Your task to perform on an android device: Turn on the flashlight Image 0: 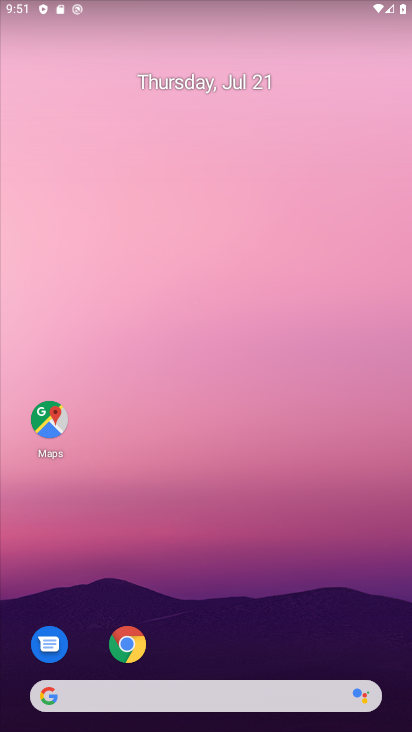
Step 0: drag from (264, 111) to (315, 61)
Your task to perform on an android device: Turn on the flashlight Image 1: 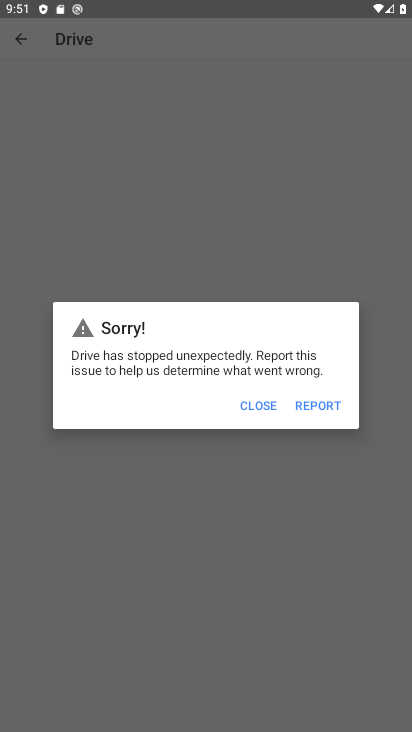
Step 1: press home button
Your task to perform on an android device: Turn on the flashlight Image 2: 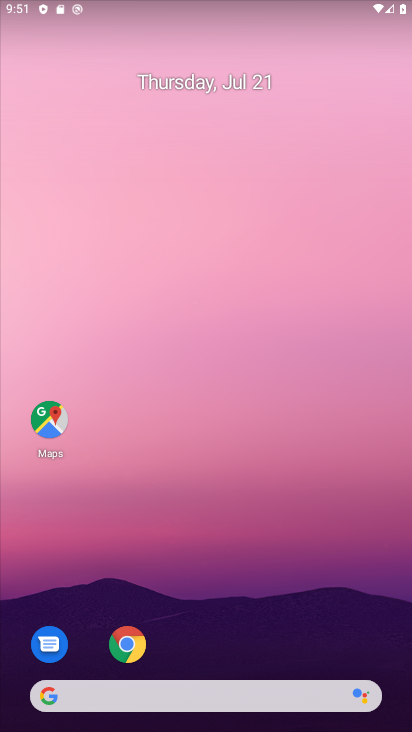
Step 2: drag from (220, 590) to (239, 45)
Your task to perform on an android device: Turn on the flashlight Image 3: 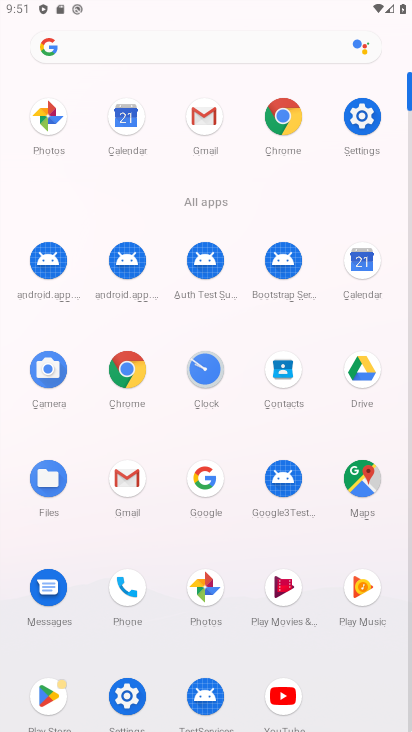
Step 3: click (122, 689)
Your task to perform on an android device: Turn on the flashlight Image 4: 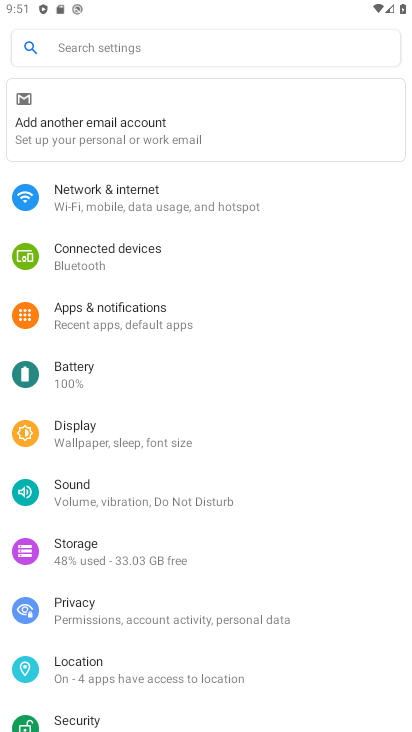
Step 4: click (187, 47)
Your task to perform on an android device: Turn on the flashlight Image 5: 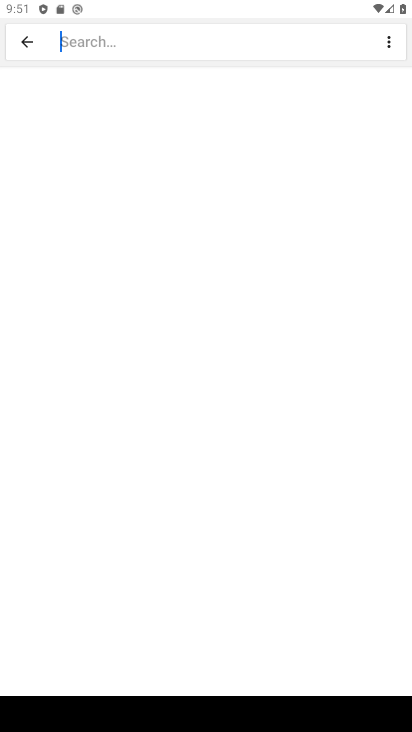
Step 5: type "flashlight"
Your task to perform on an android device: Turn on the flashlight Image 6: 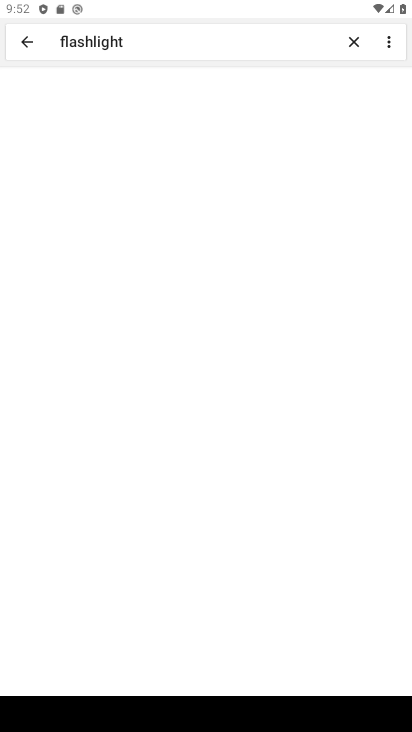
Step 6: click (129, 101)
Your task to perform on an android device: Turn on the flashlight Image 7: 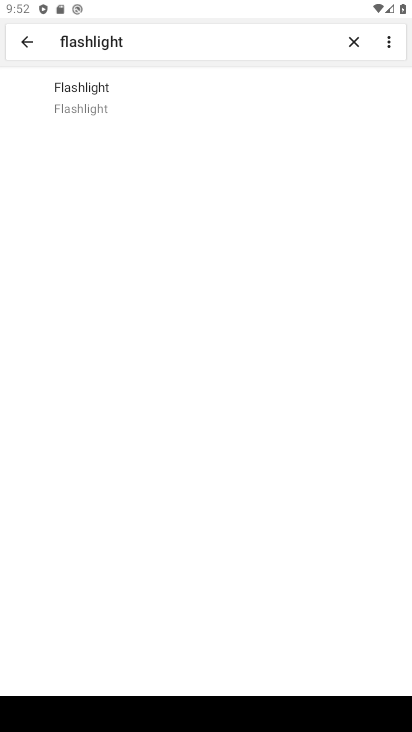
Step 7: click (89, 100)
Your task to perform on an android device: Turn on the flashlight Image 8: 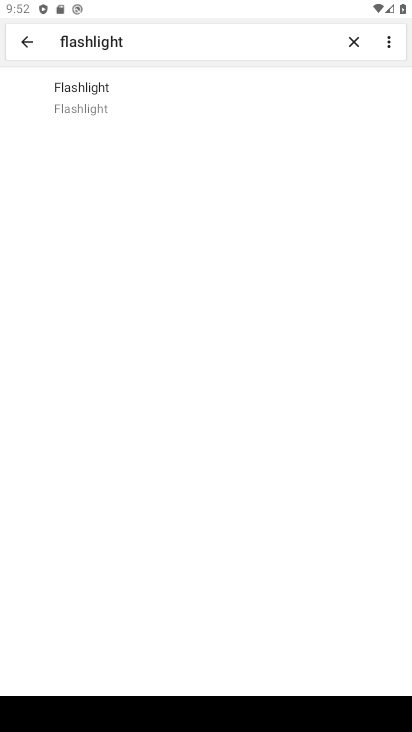
Step 8: task complete